Your task to perform on an android device: Open the map Image 0: 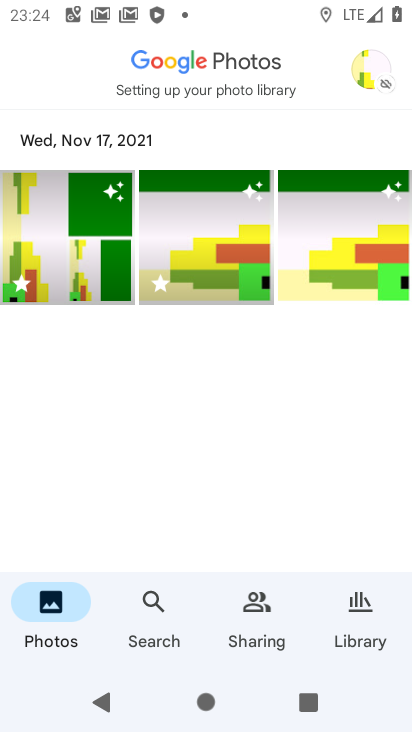
Step 0: press home button
Your task to perform on an android device: Open the map Image 1: 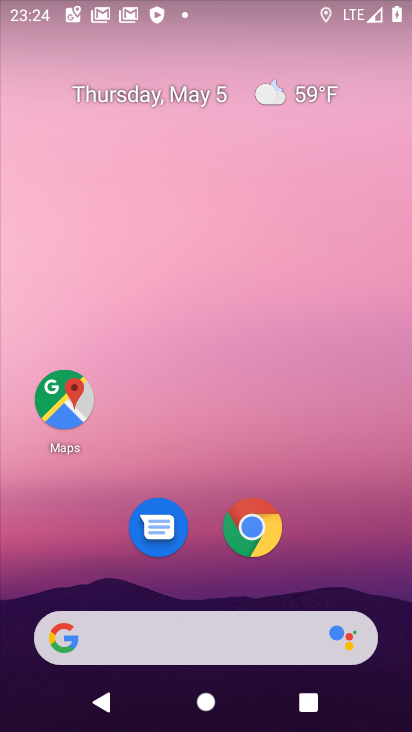
Step 1: click (56, 386)
Your task to perform on an android device: Open the map Image 2: 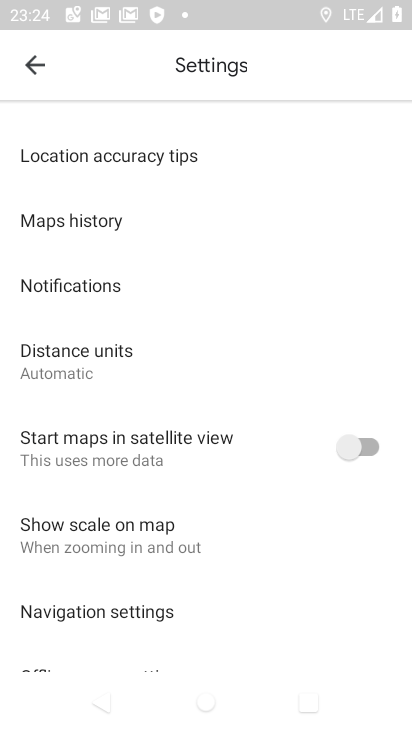
Step 2: click (41, 68)
Your task to perform on an android device: Open the map Image 3: 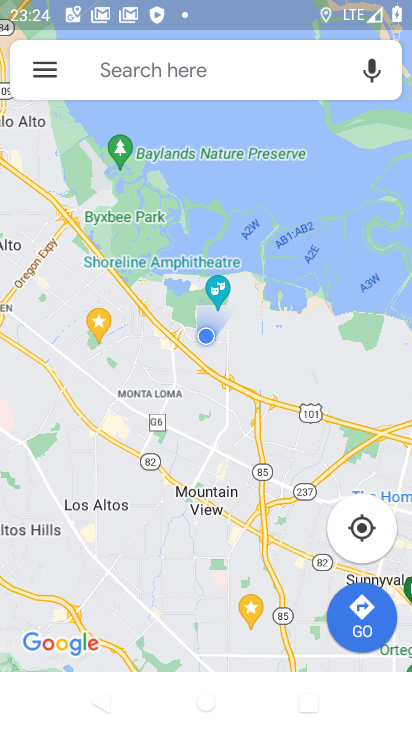
Step 3: task complete